Your task to perform on an android device: Go to location settings Image 0: 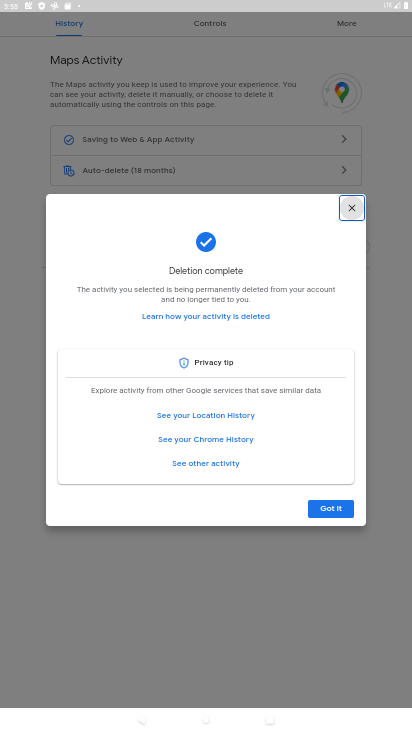
Step 0: press home button
Your task to perform on an android device: Go to location settings Image 1: 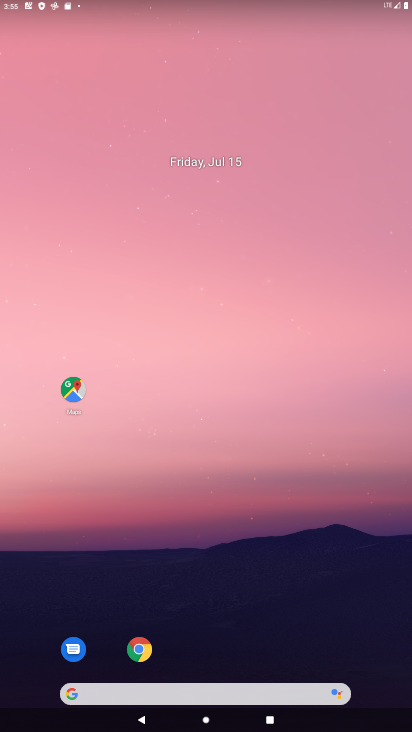
Step 1: drag from (311, 608) to (269, 123)
Your task to perform on an android device: Go to location settings Image 2: 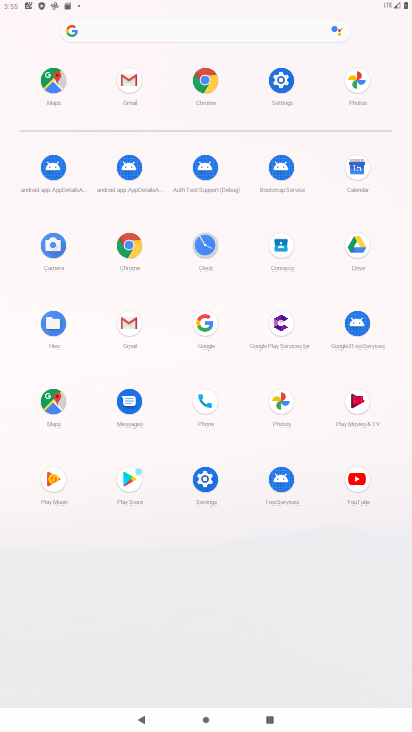
Step 2: click (281, 77)
Your task to perform on an android device: Go to location settings Image 3: 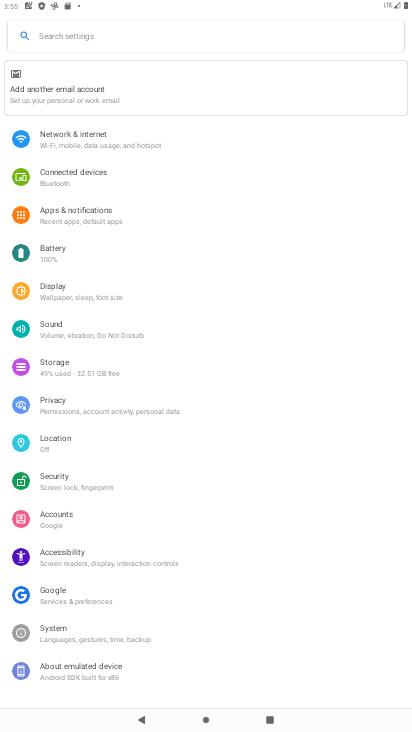
Step 3: click (69, 445)
Your task to perform on an android device: Go to location settings Image 4: 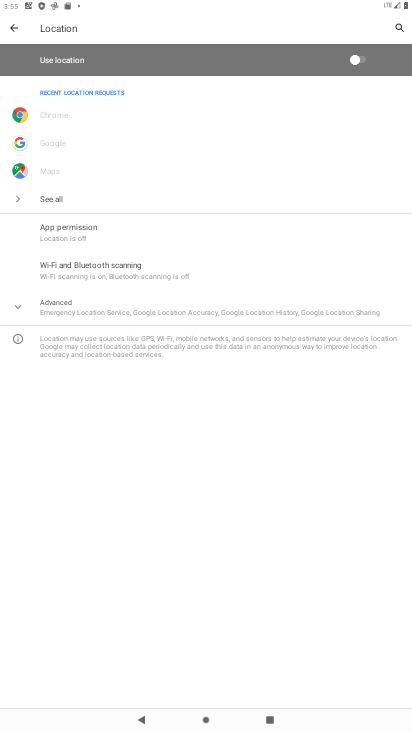
Step 4: task complete